Your task to perform on an android device: What is the recent news? Image 0: 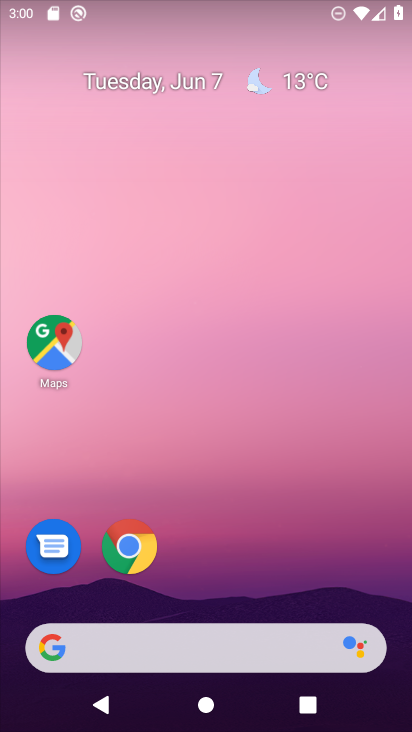
Step 0: drag from (279, 570) to (195, 29)
Your task to perform on an android device: What is the recent news? Image 1: 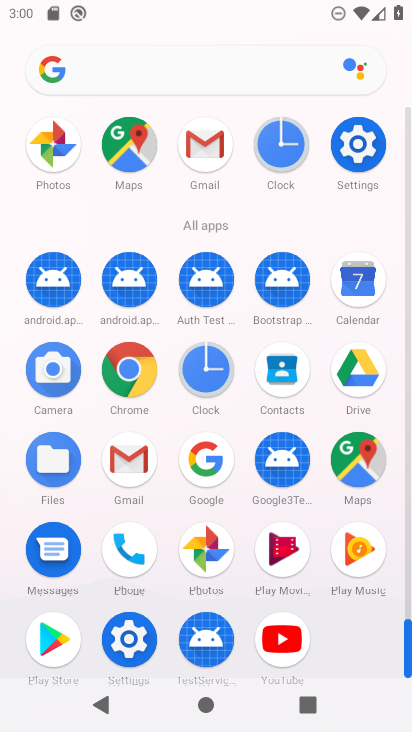
Step 1: click (129, 364)
Your task to perform on an android device: What is the recent news? Image 2: 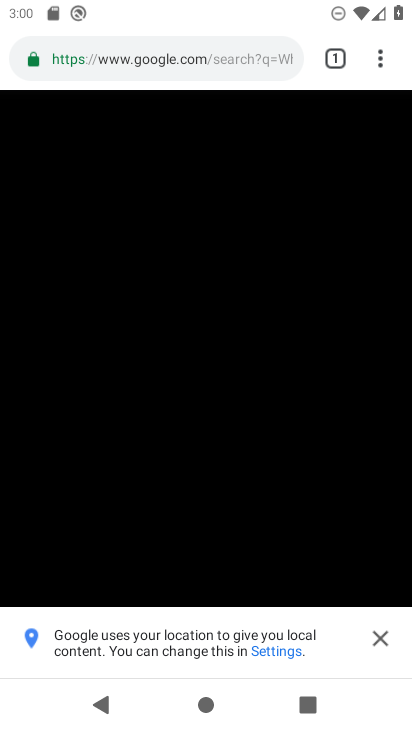
Step 2: click (112, 32)
Your task to perform on an android device: What is the recent news? Image 3: 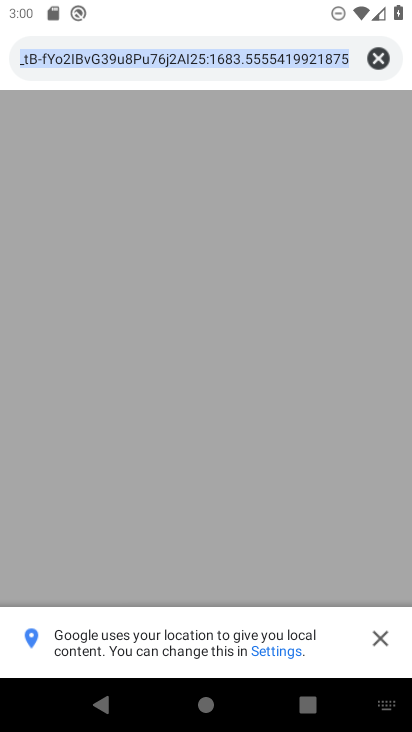
Step 3: click (377, 62)
Your task to perform on an android device: What is the recent news? Image 4: 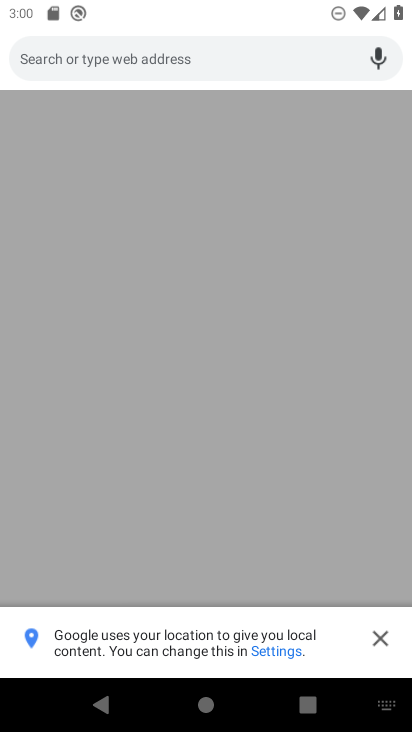
Step 4: type "What is the recent news?"
Your task to perform on an android device: What is the recent news? Image 5: 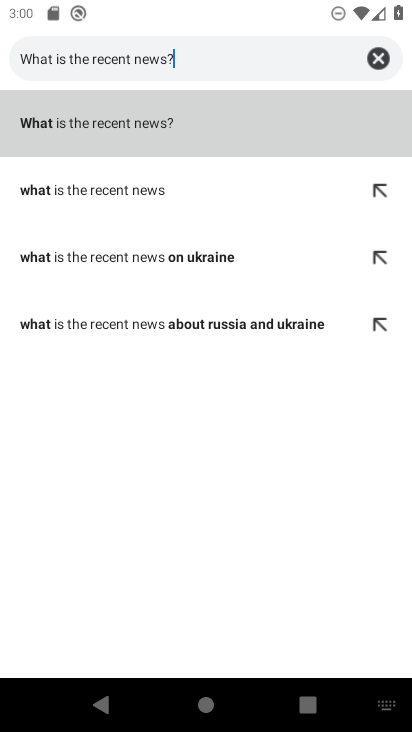
Step 5: type ""
Your task to perform on an android device: What is the recent news? Image 6: 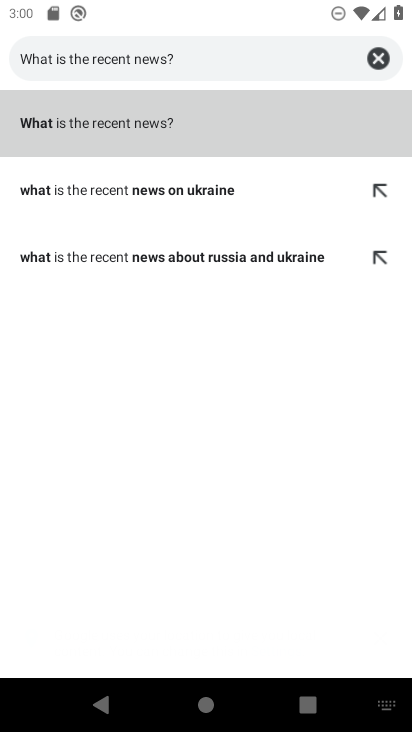
Step 6: click (146, 113)
Your task to perform on an android device: What is the recent news? Image 7: 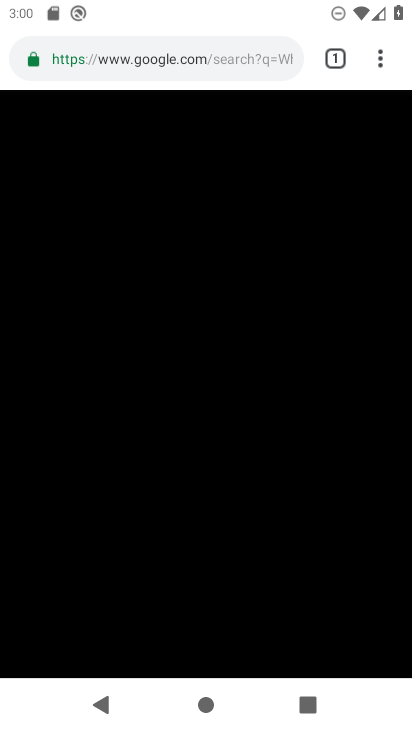
Step 7: click (162, 56)
Your task to perform on an android device: What is the recent news? Image 8: 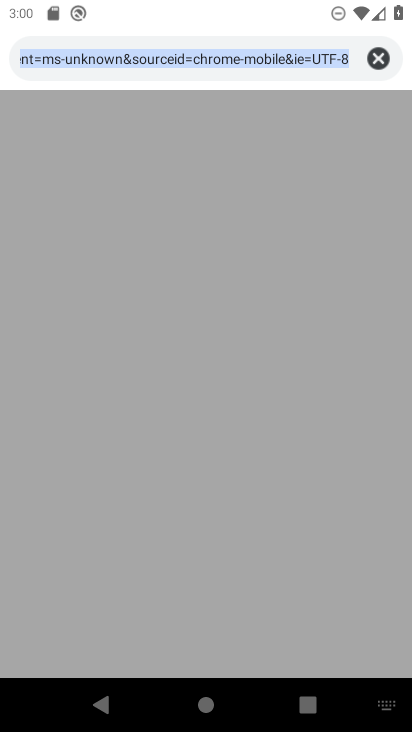
Step 8: click (377, 53)
Your task to perform on an android device: What is the recent news? Image 9: 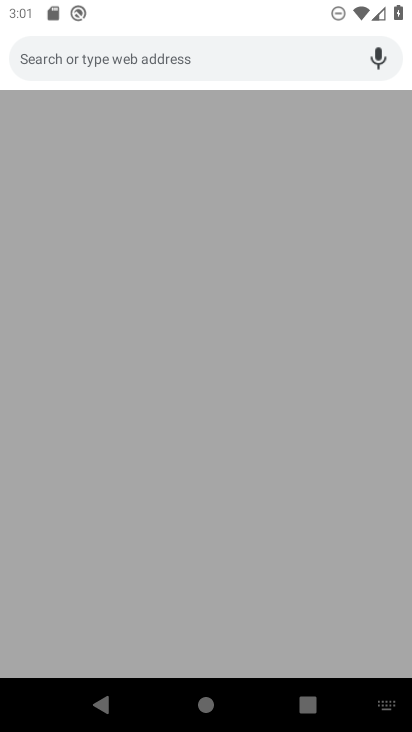
Step 9: type "What is the recent news?"
Your task to perform on an android device: What is the recent news? Image 10: 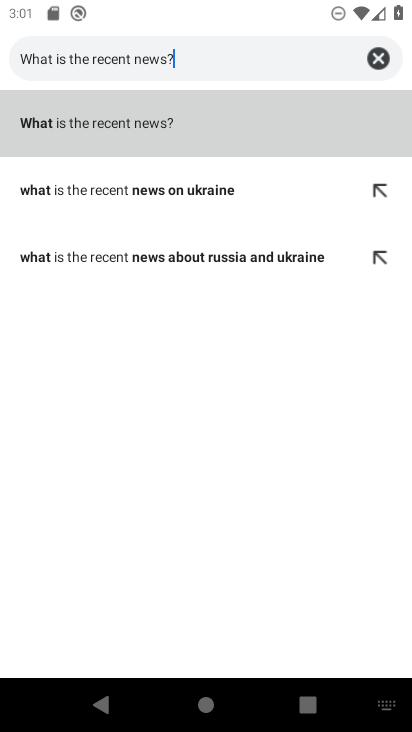
Step 10: type ""
Your task to perform on an android device: What is the recent news? Image 11: 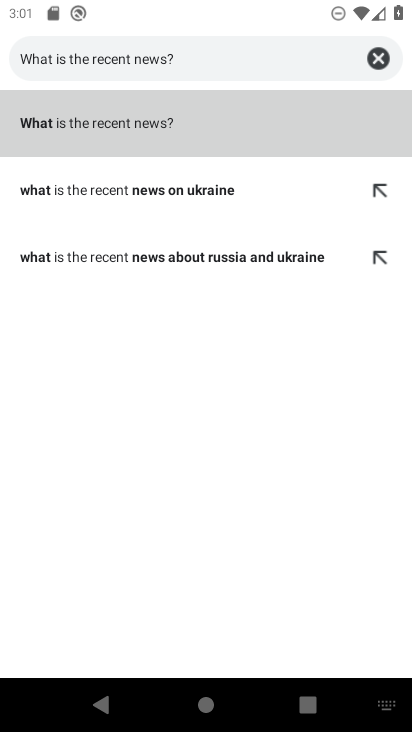
Step 11: click (212, 122)
Your task to perform on an android device: What is the recent news? Image 12: 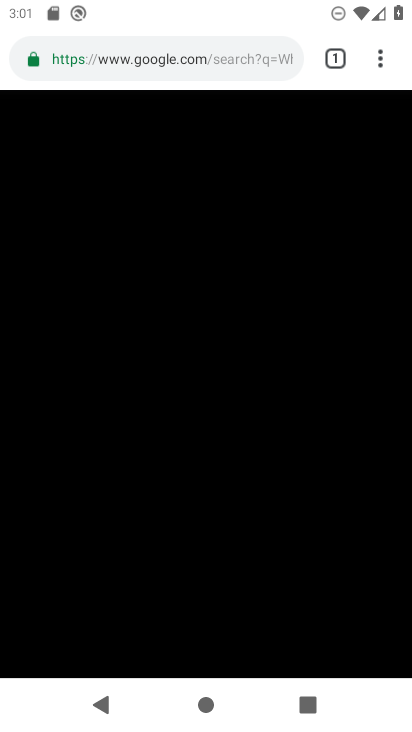
Step 12: task complete